Your task to perform on an android device: change notifications settings Image 0: 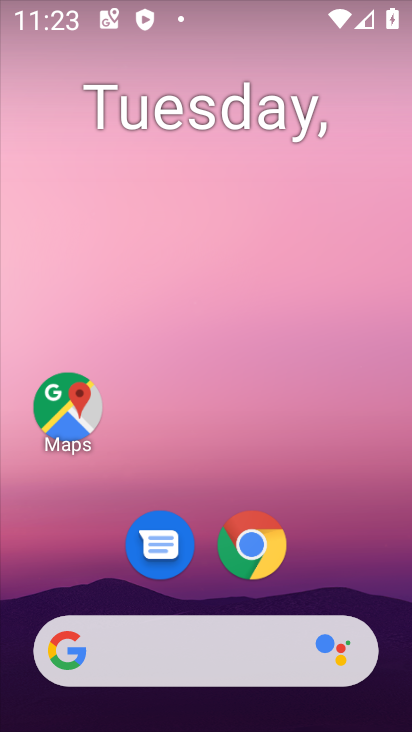
Step 0: drag from (319, 500) to (324, 103)
Your task to perform on an android device: change notifications settings Image 1: 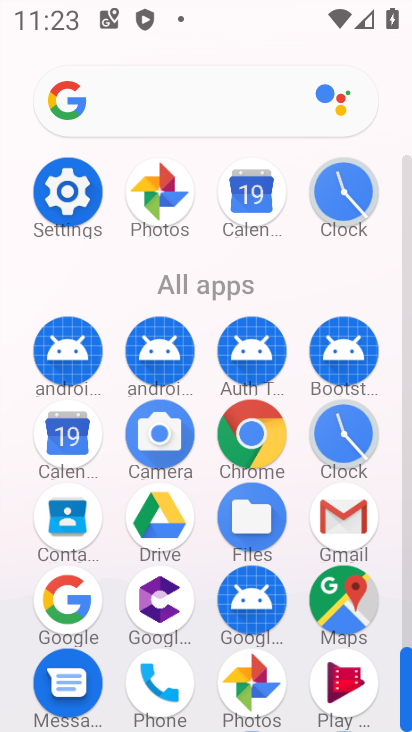
Step 1: click (86, 196)
Your task to perform on an android device: change notifications settings Image 2: 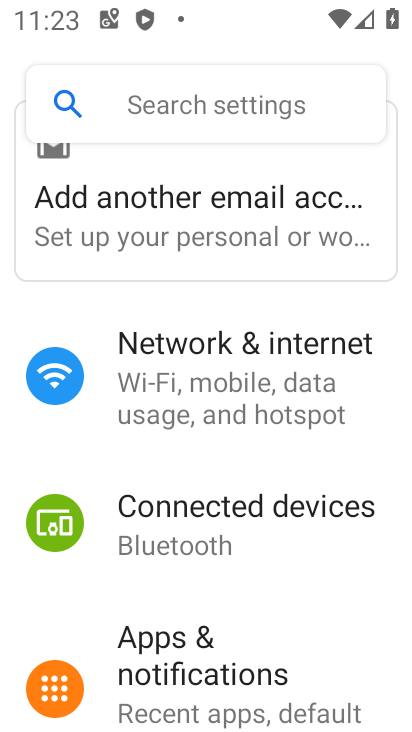
Step 2: click (244, 660)
Your task to perform on an android device: change notifications settings Image 3: 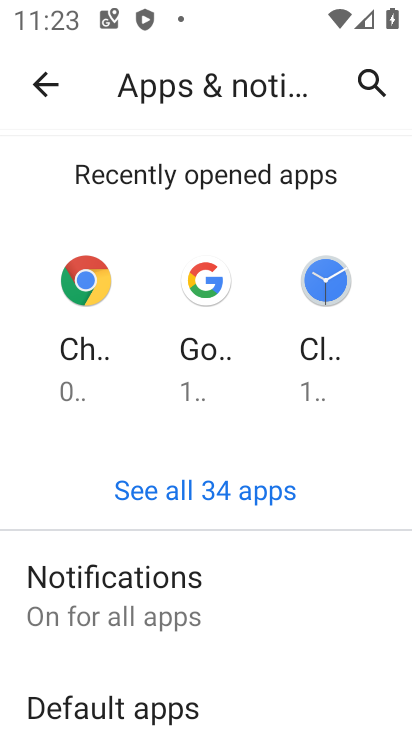
Step 3: click (173, 593)
Your task to perform on an android device: change notifications settings Image 4: 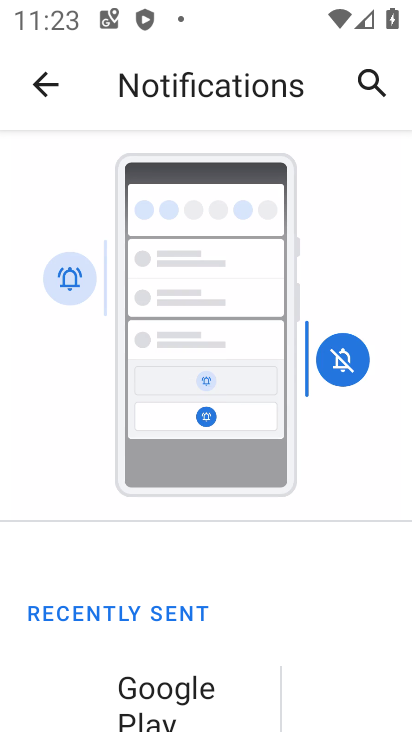
Step 4: drag from (251, 580) to (281, 132)
Your task to perform on an android device: change notifications settings Image 5: 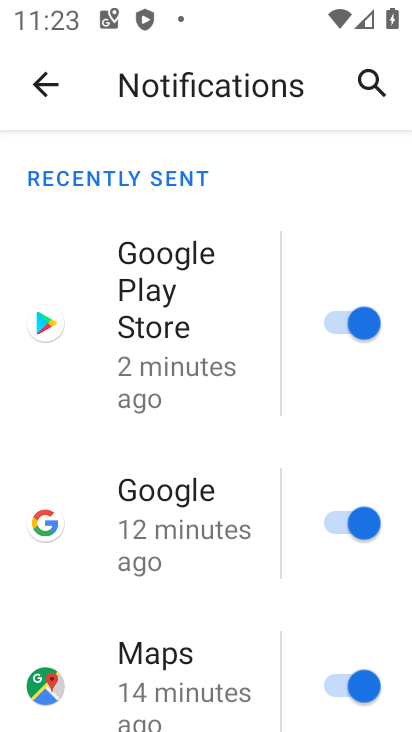
Step 5: click (325, 311)
Your task to perform on an android device: change notifications settings Image 6: 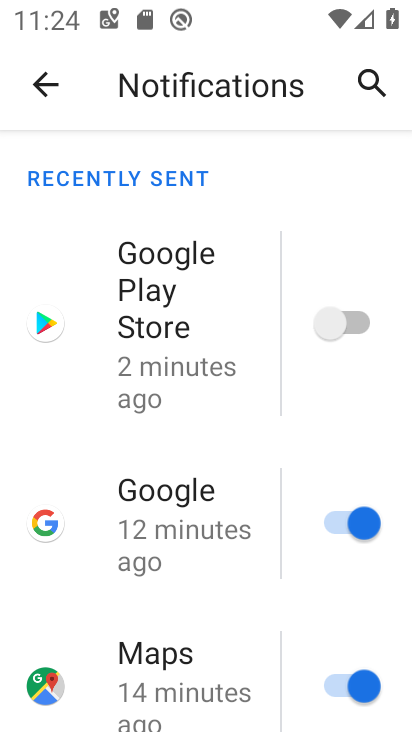
Step 6: click (334, 516)
Your task to perform on an android device: change notifications settings Image 7: 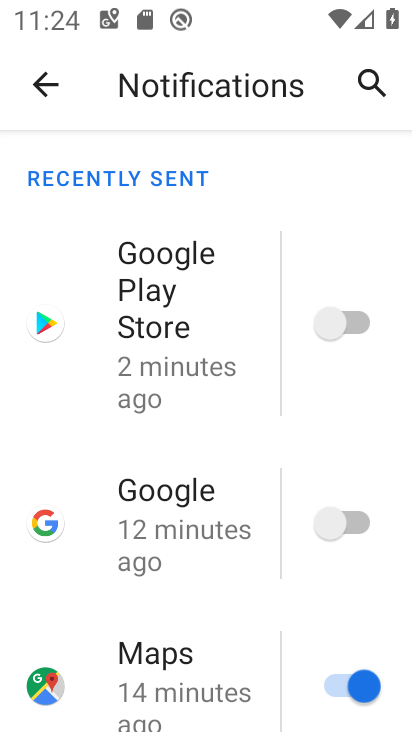
Step 7: click (334, 682)
Your task to perform on an android device: change notifications settings Image 8: 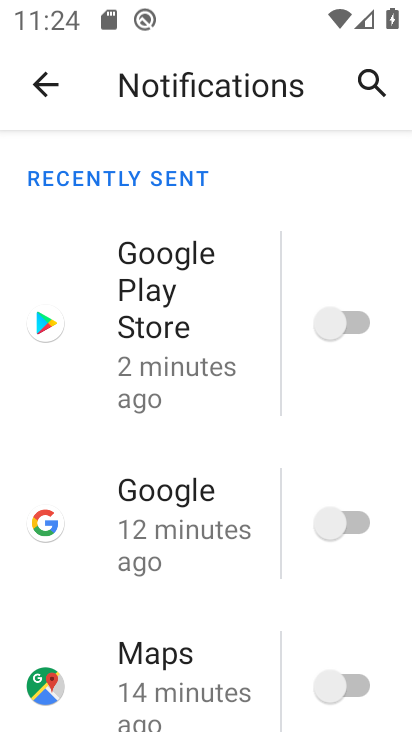
Step 8: drag from (209, 603) to (256, 103)
Your task to perform on an android device: change notifications settings Image 9: 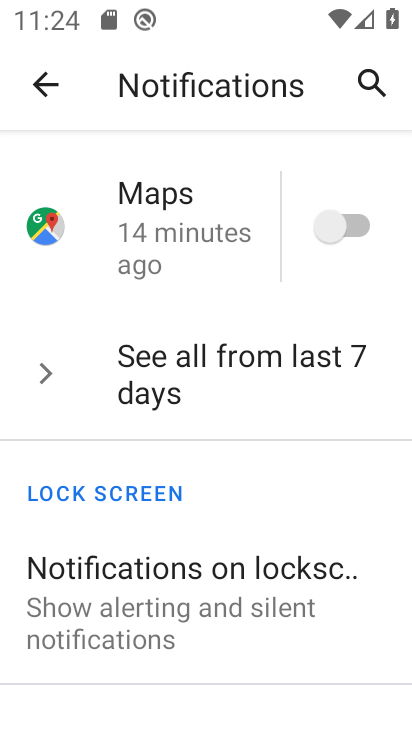
Step 9: click (237, 385)
Your task to perform on an android device: change notifications settings Image 10: 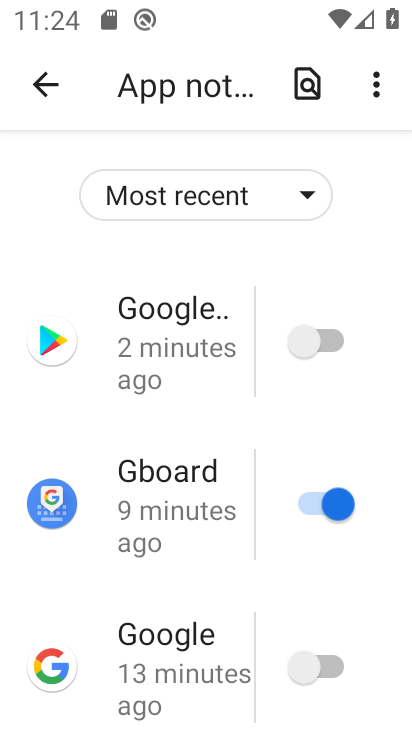
Step 10: click (334, 331)
Your task to perform on an android device: change notifications settings Image 11: 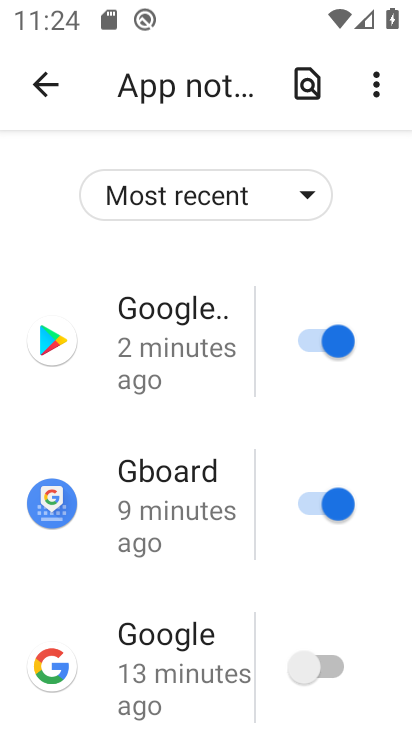
Step 11: click (304, 498)
Your task to perform on an android device: change notifications settings Image 12: 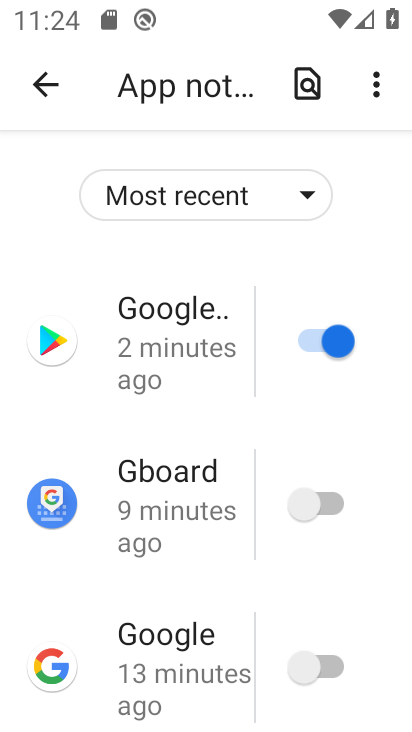
Step 12: click (327, 668)
Your task to perform on an android device: change notifications settings Image 13: 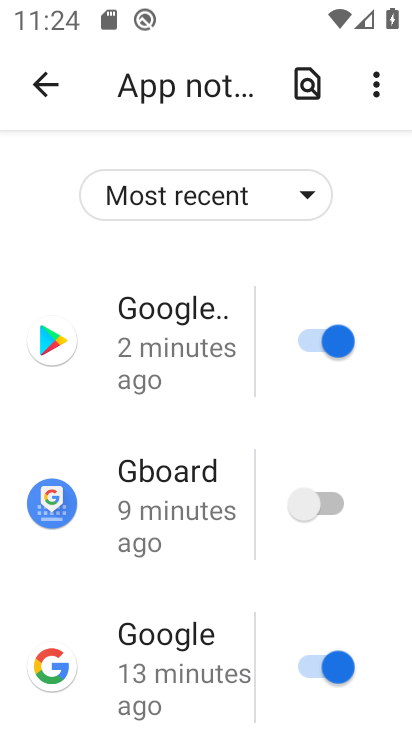
Step 13: drag from (225, 575) to (241, 178)
Your task to perform on an android device: change notifications settings Image 14: 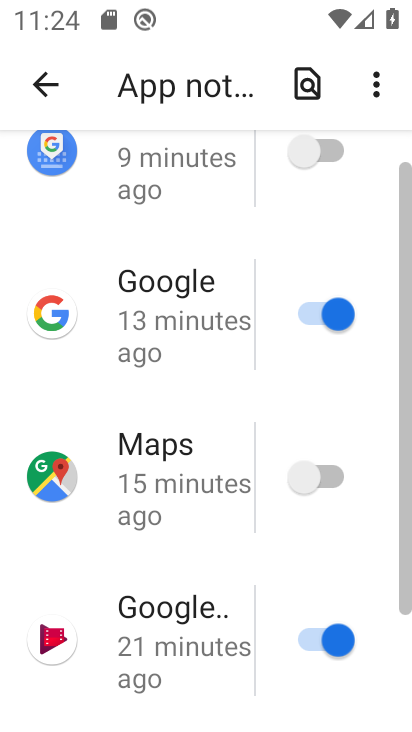
Step 14: drag from (182, 558) to (207, 95)
Your task to perform on an android device: change notifications settings Image 15: 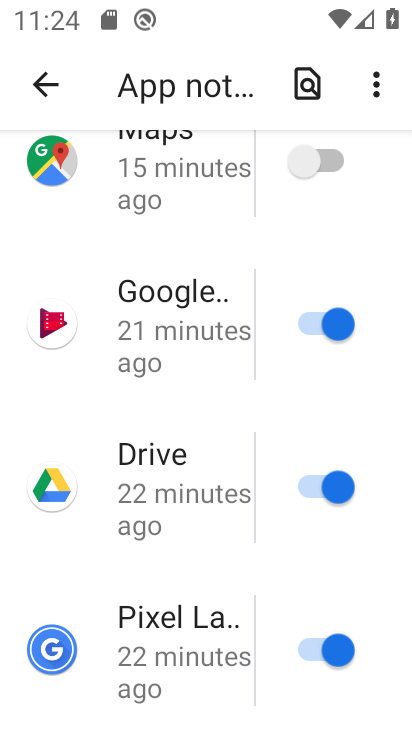
Step 15: click (299, 487)
Your task to perform on an android device: change notifications settings Image 16: 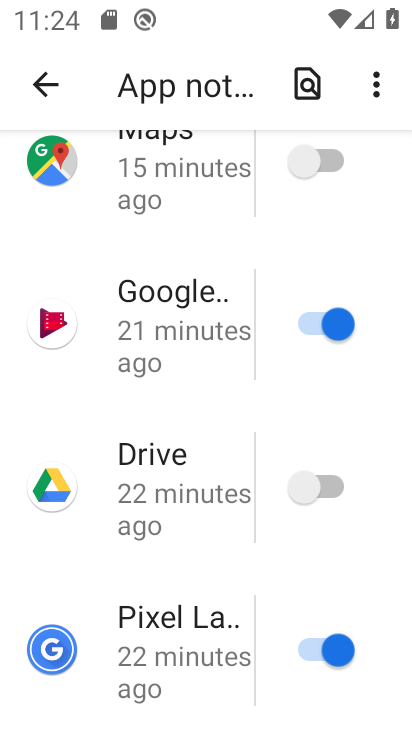
Step 16: click (311, 316)
Your task to perform on an android device: change notifications settings Image 17: 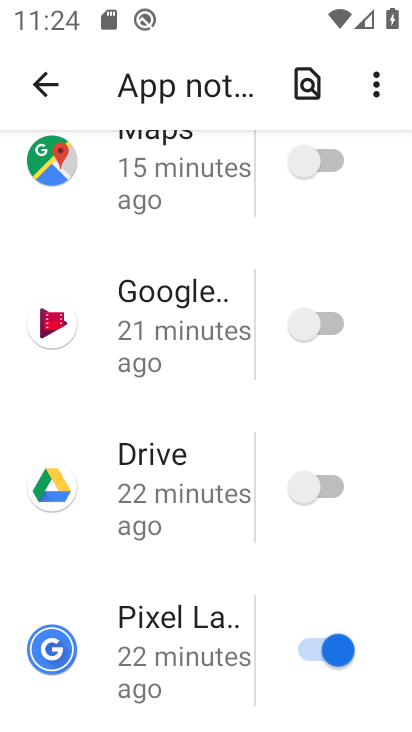
Step 17: click (317, 650)
Your task to perform on an android device: change notifications settings Image 18: 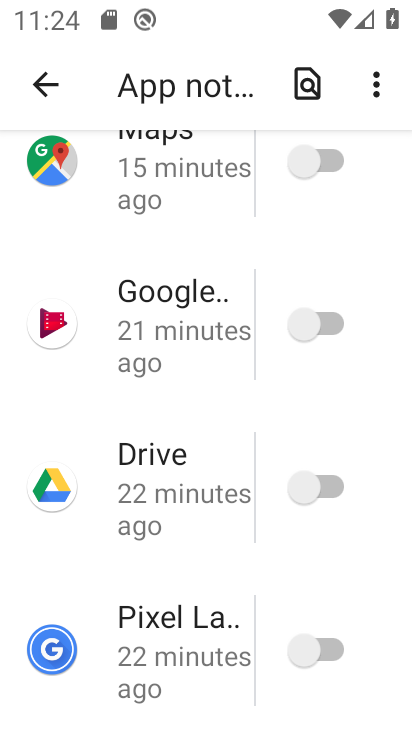
Step 18: task complete